Your task to perform on an android device: Open Google Maps and go to "Timeline" Image 0: 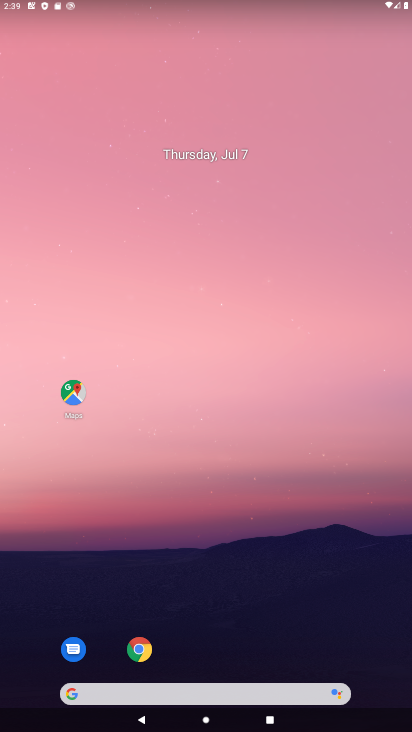
Step 0: drag from (245, 674) to (221, 229)
Your task to perform on an android device: Open Google Maps and go to "Timeline" Image 1: 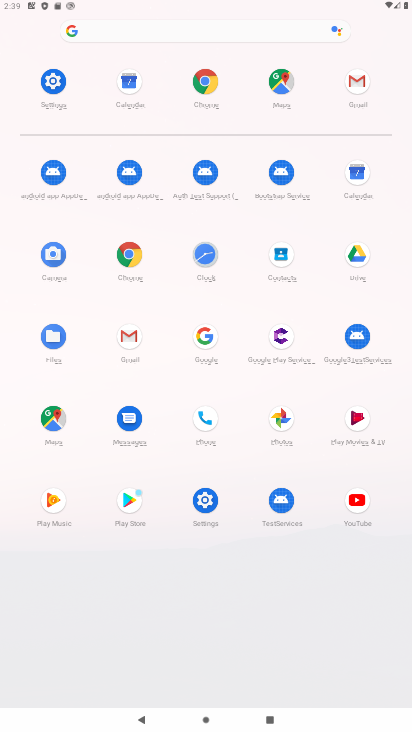
Step 1: click (39, 417)
Your task to perform on an android device: Open Google Maps and go to "Timeline" Image 2: 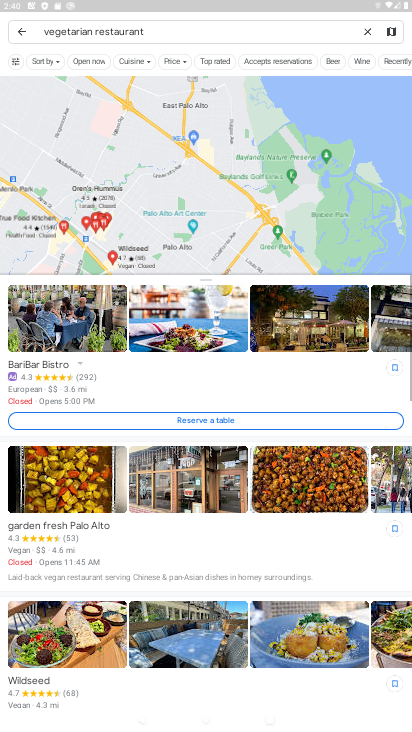
Step 2: press back button
Your task to perform on an android device: Open Google Maps and go to "Timeline" Image 3: 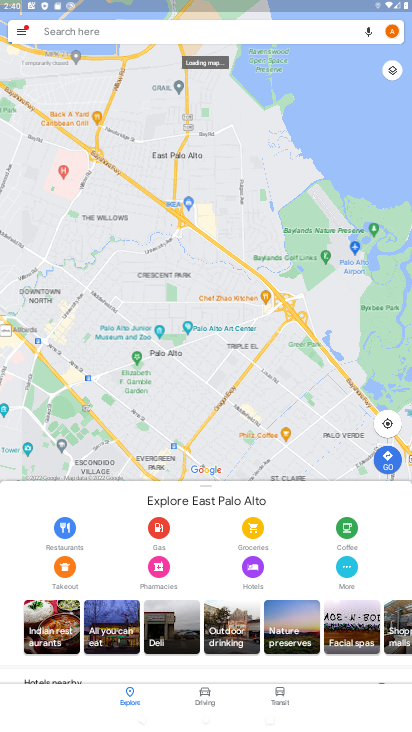
Step 3: click (24, 28)
Your task to perform on an android device: Open Google Maps and go to "Timeline" Image 4: 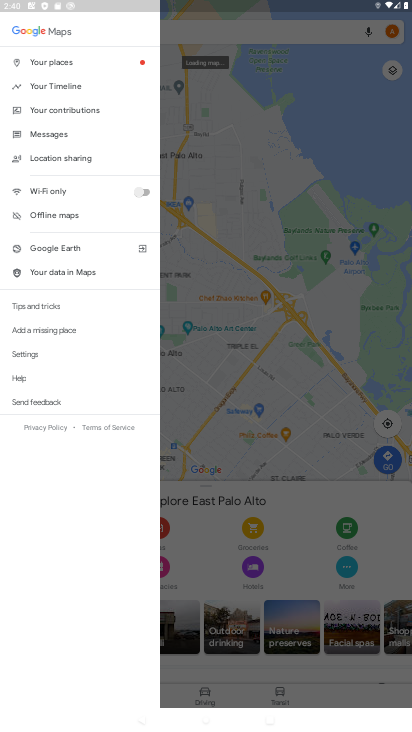
Step 4: click (65, 85)
Your task to perform on an android device: Open Google Maps and go to "Timeline" Image 5: 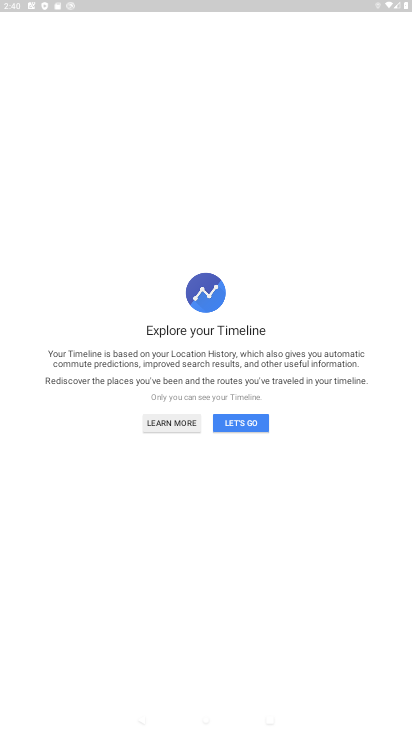
Step 5: click (238, 420)
Your task to perform on an android device: Open Google Maps and go to "Timeline" Image 6: 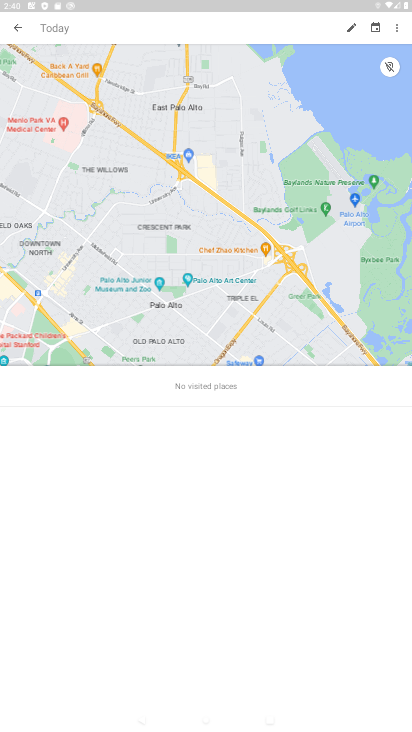
Step 6: click (393, 22)
Your task to perform on an android device: Open Google Maps and go to "Timeline" Image 7: 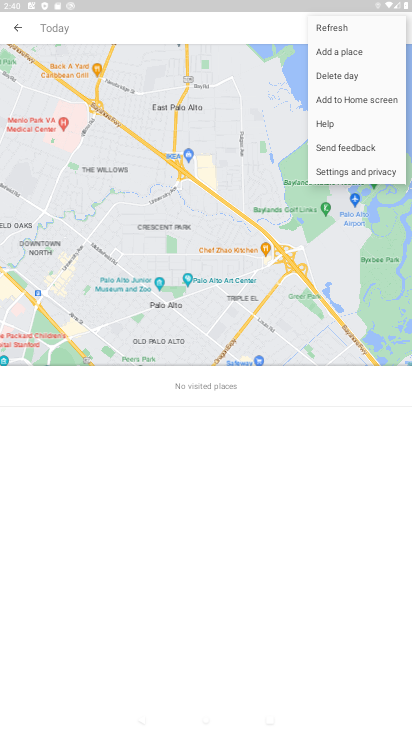
Step 7: click (348, 173)
Your task to perform on an android device: Open Google Maps and go to "Timeline" Image 8: 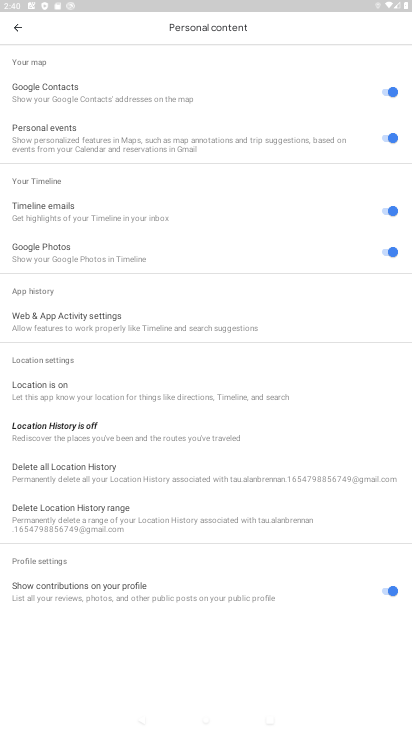
Step 8: task complete